Your task to perform on an android device: open app "Viber Messenger" (install if not already installed) Image 0: 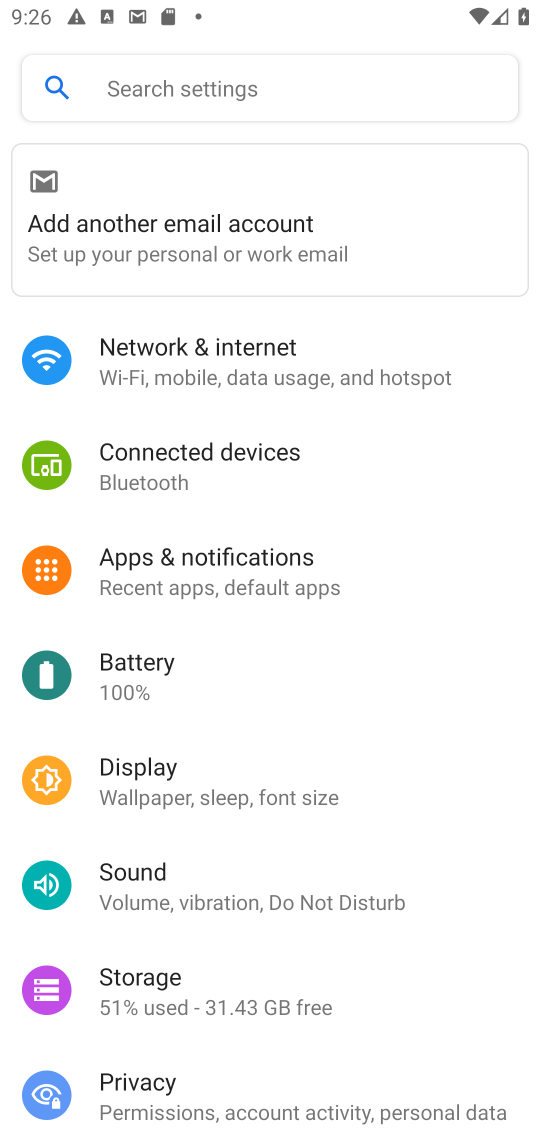
Step 0: click (192, 79)
Your task to perform on an android device: open app "Viber Messenger" (install if not already installed) Image 1: 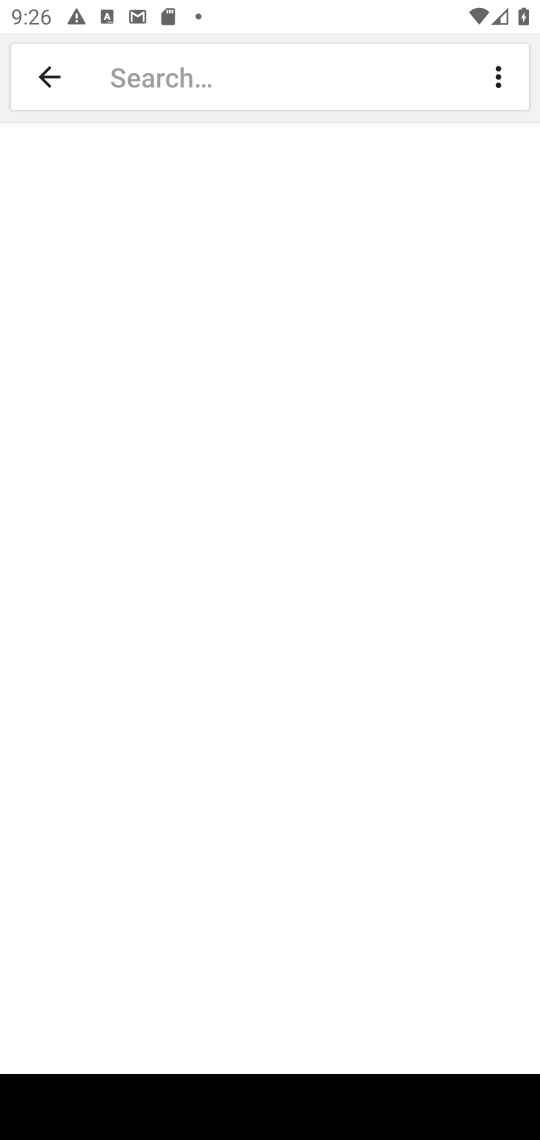
Step 1: press home button
Your task to perform on an android device: open app "Viber Messenger" (install if not already installed) Image 2: 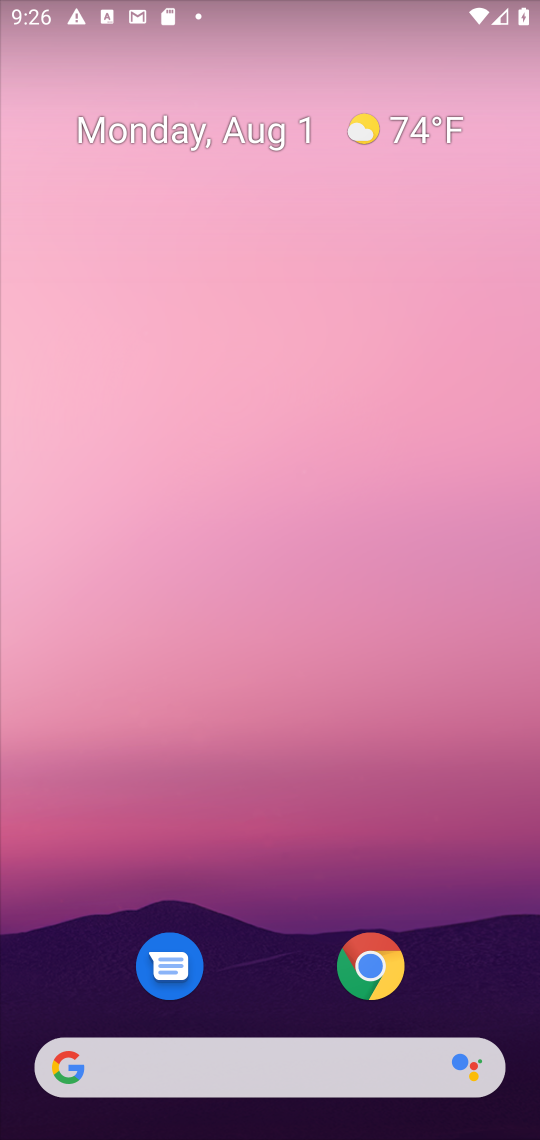
Step 2: drag from (482, 721) to (399, 96)
Your task to perform on an android device: open app "Viber Messenger" (install if not already installed) Image 3: 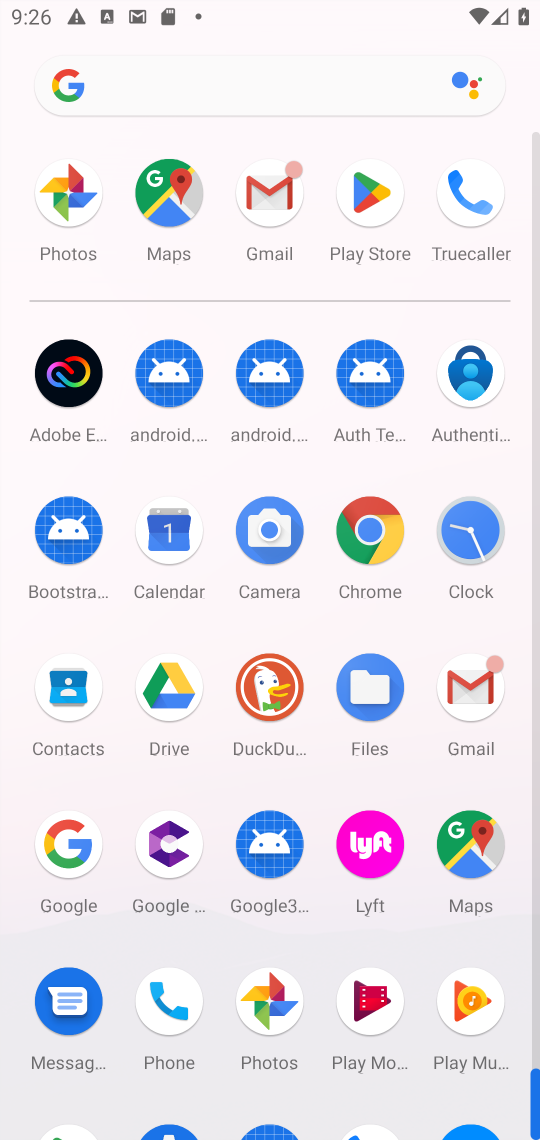
Step 3: drag from (367, 178) to (245, 754)
Your task to perform on an android device: open app "Viber Messenger" (install if not already installed) Image 4: 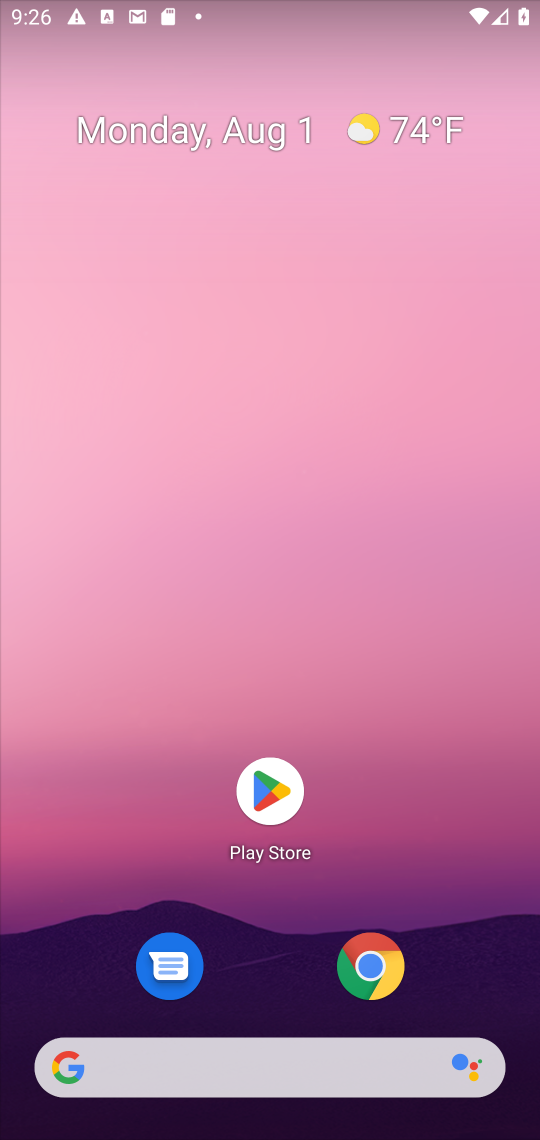
Step 4: click (264, 777)
Your task to perform on an android device: open app "Viber Messenger" (install if not already installed) Image 5: 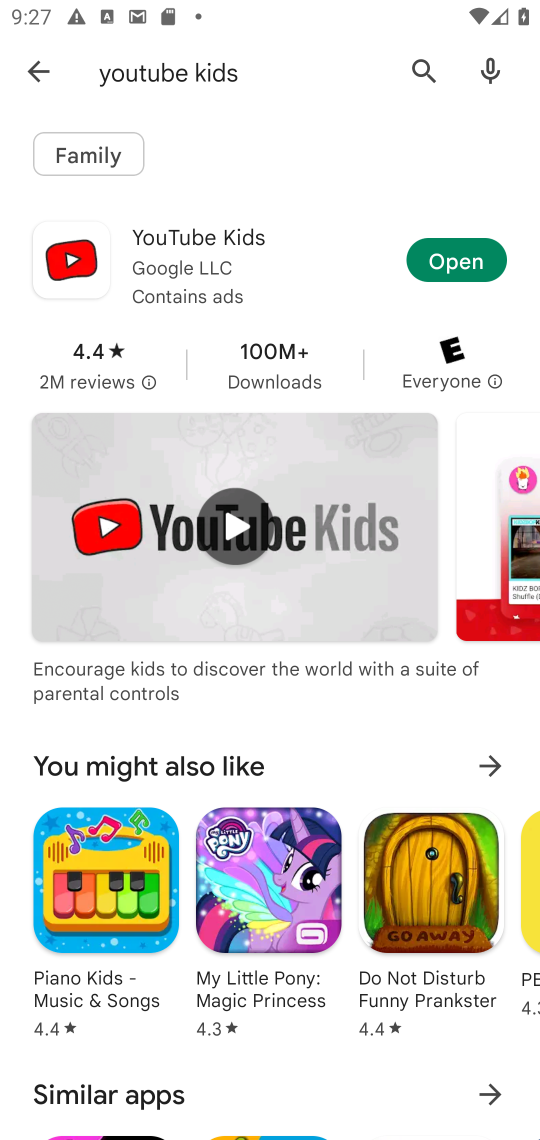
Step 5: click (423, 57)
Your task to perform on an android device: open app "Viber Messenger" (install if not already installed) Image 6: 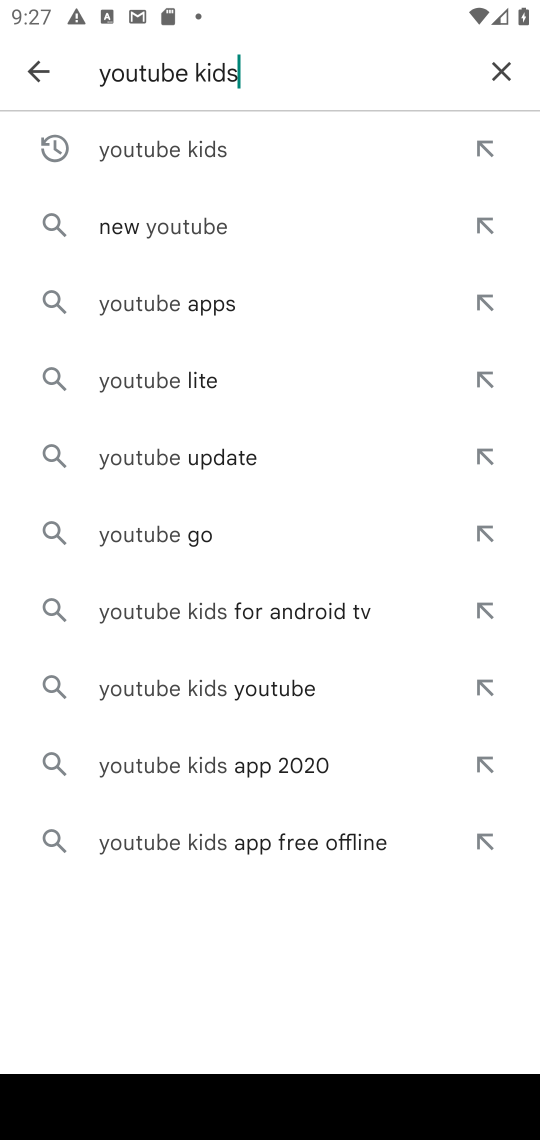
Step 6: click (503, 61)
Your task to perform on an android device: open app "Viber Messenger" (install if not already installed) Image 7: 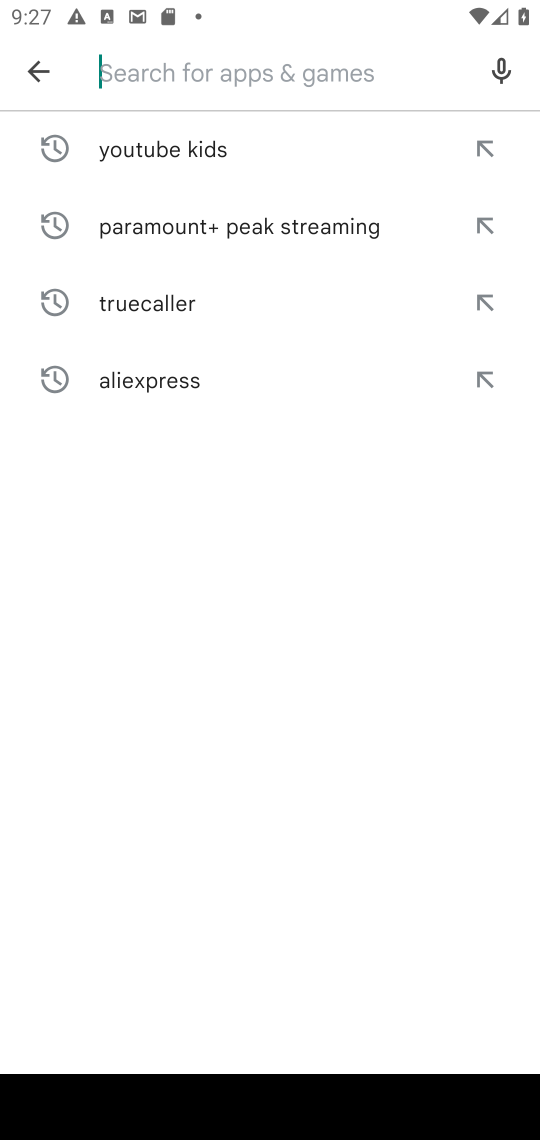
Step 7: type "Viber Messenger"
Your task to perform on an android device: open app "Viber Messenger" (install if not already installed) Image 8: 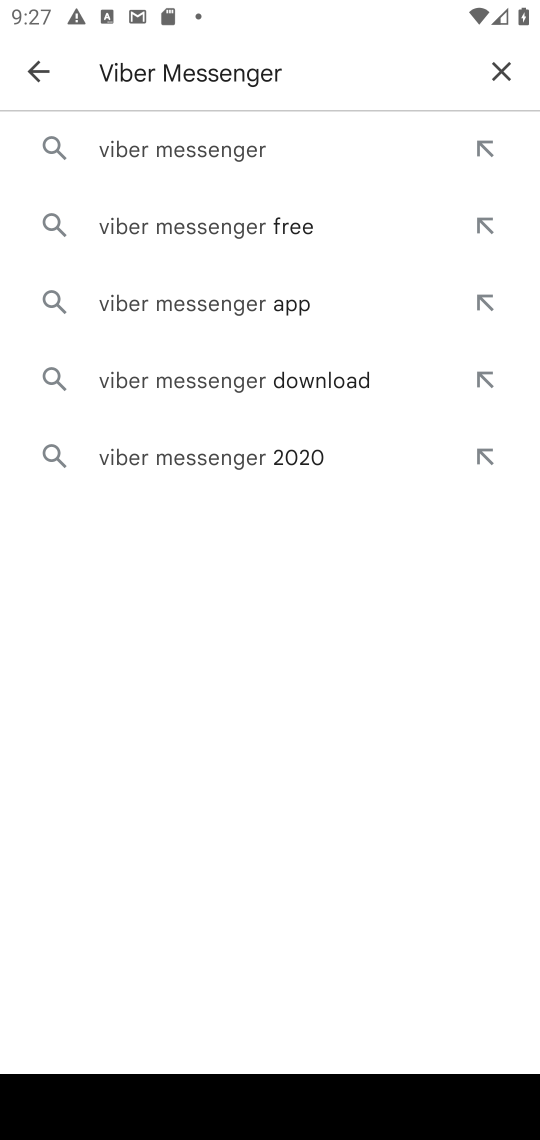
Step 8: click (252, 154)
Your task to perform on an android device: open app "Viber Messenger" (install if not already installed) Image 9: 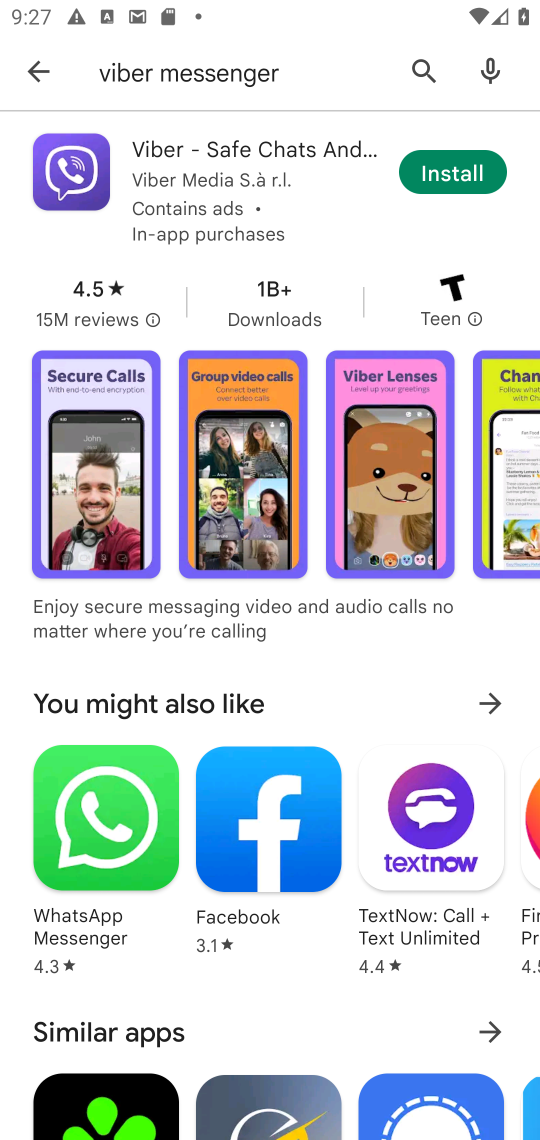
Step 9: click (433, 169)
Your task to perform on an android device: open app "Viber Messenger" (install if not already installed) Image 10: 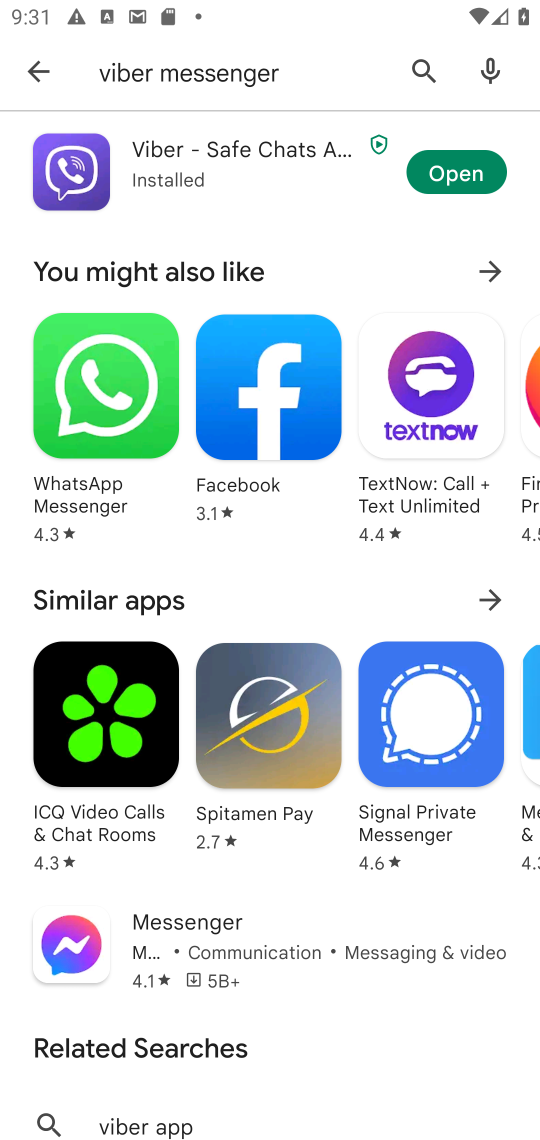
Step 10: click (472, 169)
Your task to perform on an android device: open app "Viber Messenger" (install if not already installed) Image 11: 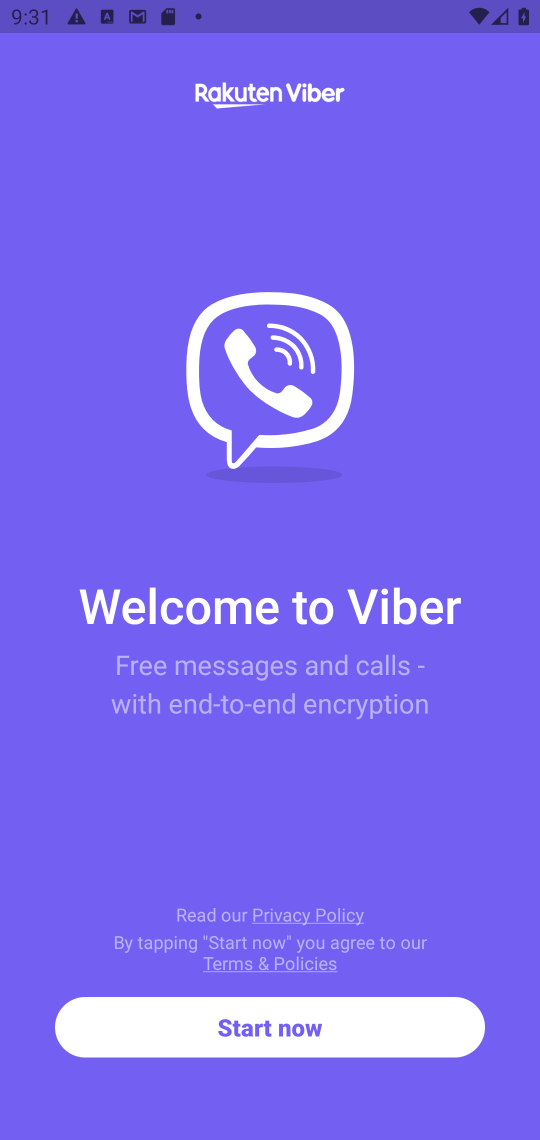
Step 11: task complete